Your task to perform on an android device: allow cookies in the chrome app Image 0: 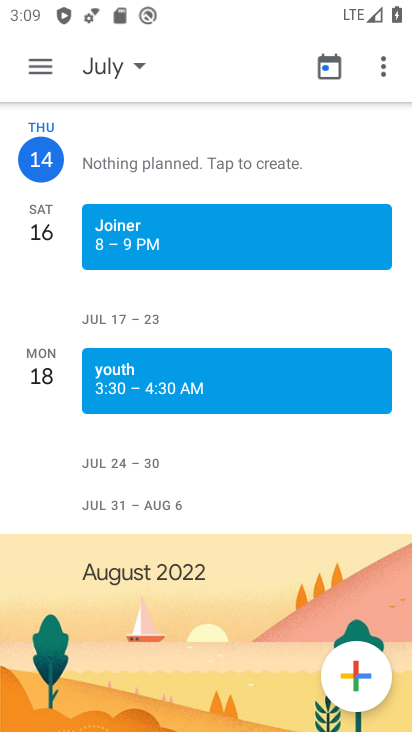
Step 0: press home button
Your task to perform on an android device: allow cookies in the chrome app Image 1: 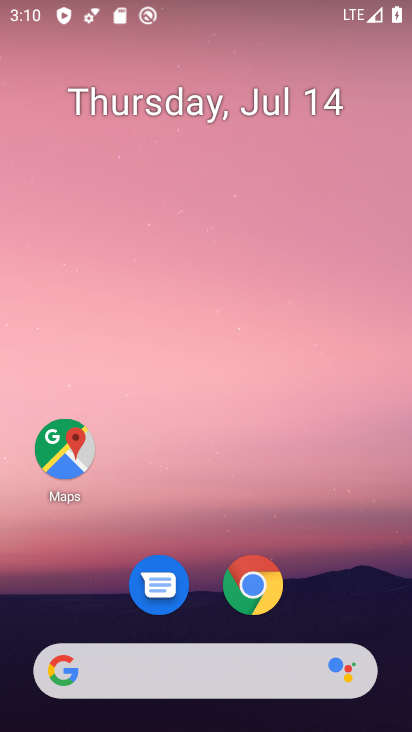
Step 1: click (260, 586)
Your task to perform on an android device: allow cookies in the chrome app Image 2: 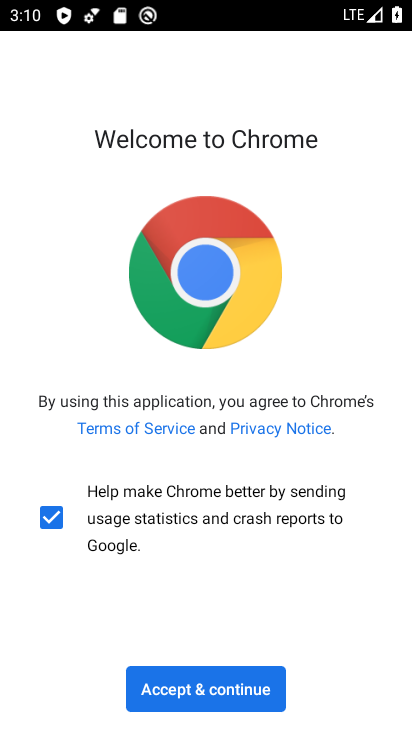
Step 2: click (258, 699)
Your task to perform on an android device: allow cookies in the chrome app Image 3: 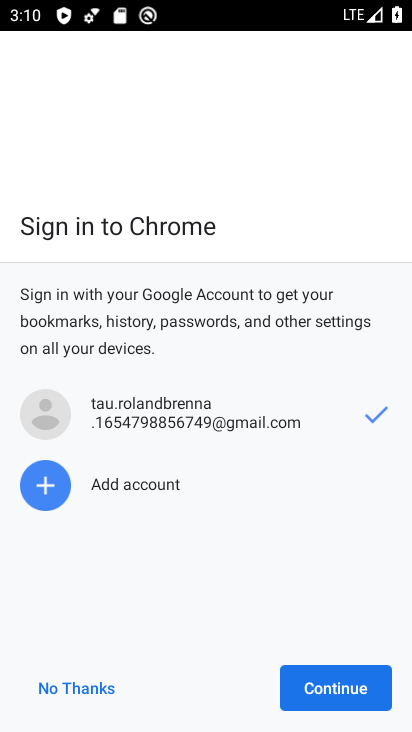
Step 3: click (323, 697)
Your task to perform on an android device: allow cookies in the chrome app Image 4: 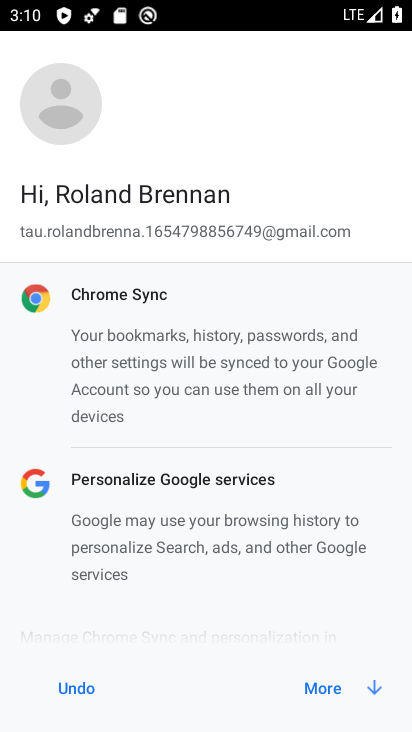
Step 4: click (323, 686)
Your task to perform on an android device: allow cookies in the chrome app Image 5: 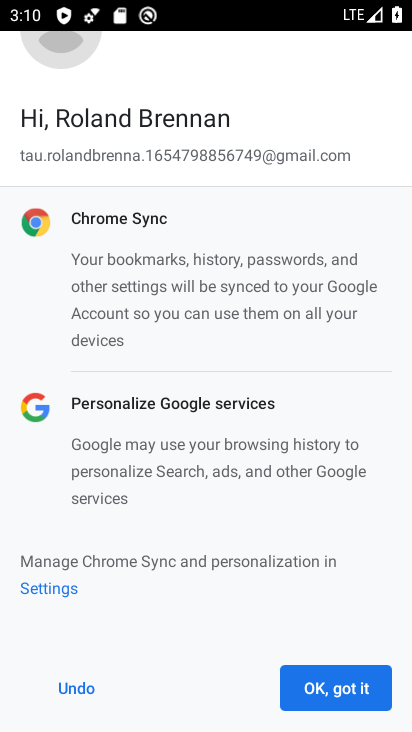
Step 5: click (323, 688)
Your task to perform on an android device: allow cookies in the chrome app Image 6: 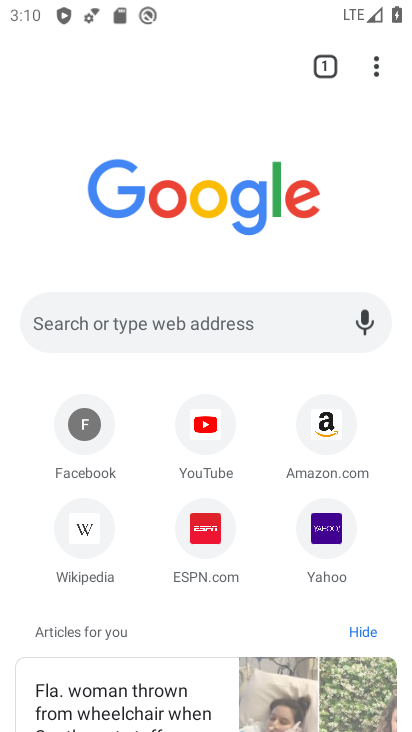
Step 6: click (373, 60)
Your task to perform on an android device: allow cookies in the chrome app Image 7: 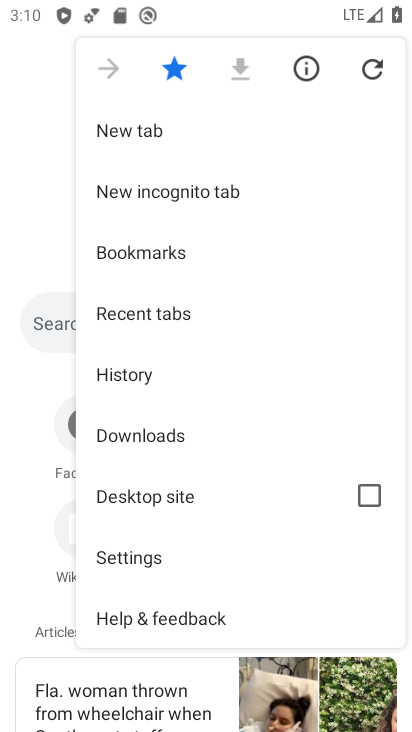
Step 7: click (137, 556)
Your task to perform on an android device: allow cookies in the chrome app Image 8: 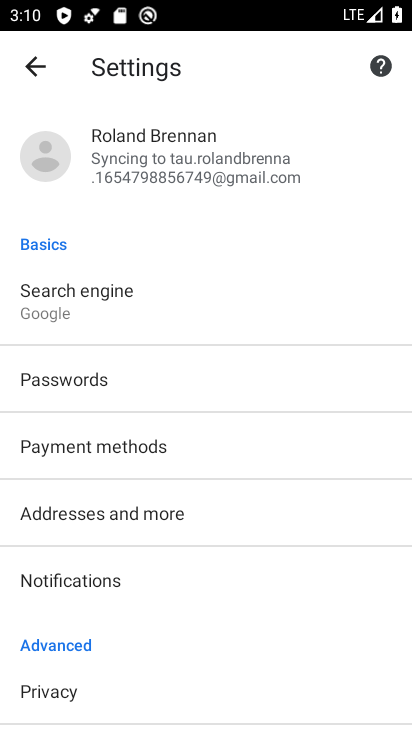
Step 8: drag from (203, 616) to (194, 291)
Your task to perform on an android device: allow cookies in the chrome app Image 9: 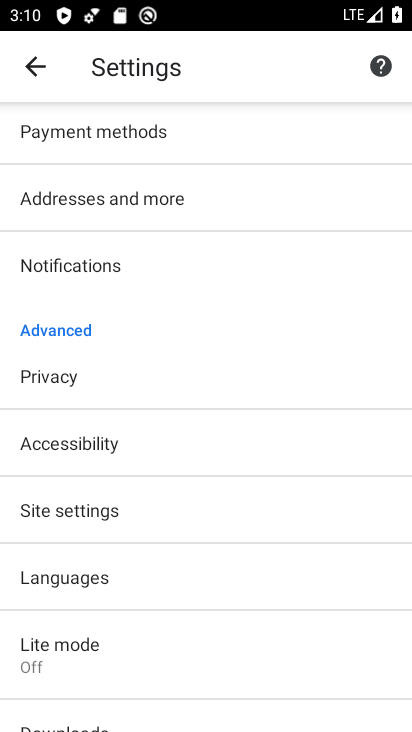
Step 9: click (92, 502)
Your task to perform on an android device: allow cookies in the chrome app Image 10: 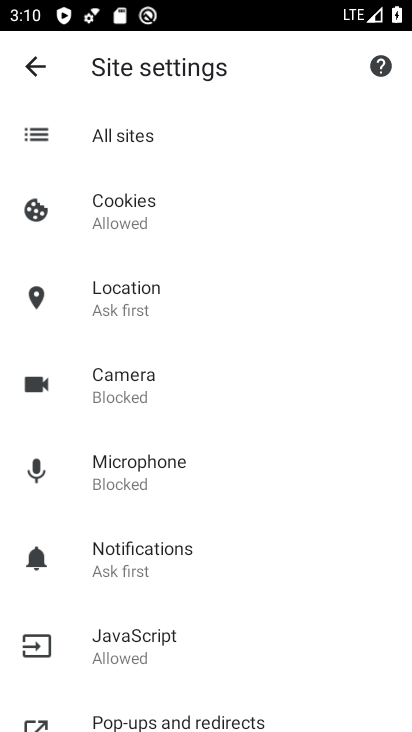
Step 10: click (153, 199)
Your task to perform on an android device: allow cookies in the chrome app Image 11: 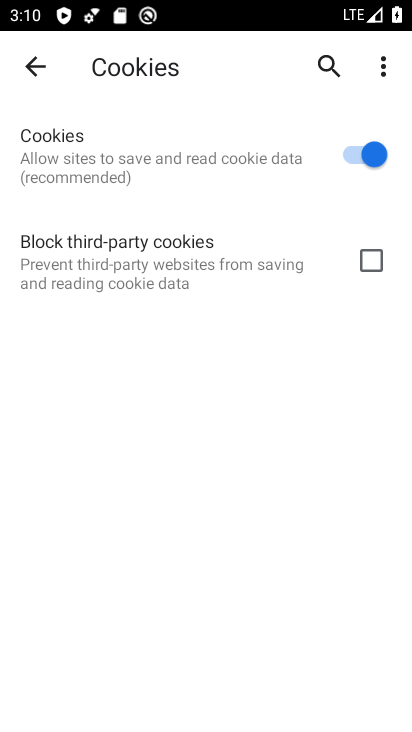
Step 11: task complete